Your task to perform on an android device: change the clock display to show seconds Image 0: 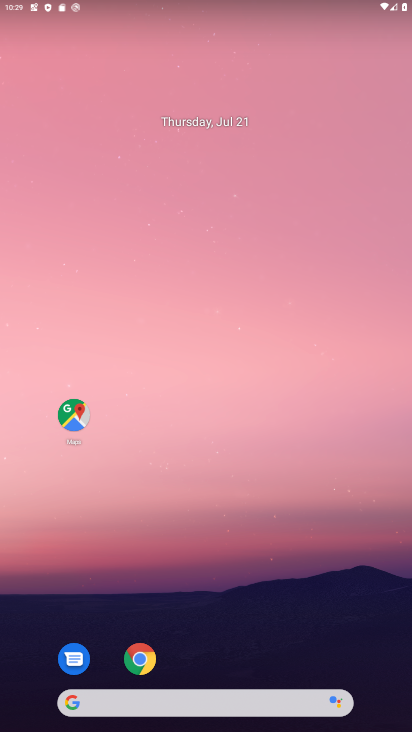
Step 0: drag from (249, 669) to (200, 78)
Your task to perform on an android device: change the clock display to show seconds Image 1: 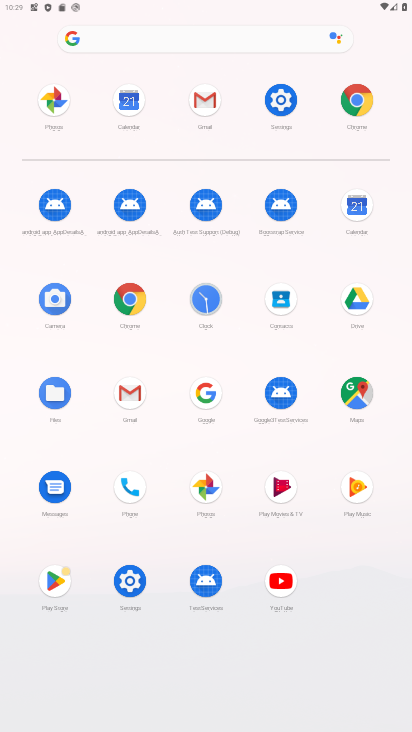
Step 1: click (210, 290)
Your task to perform on an android device: change the clock display to show seconds Image 2: 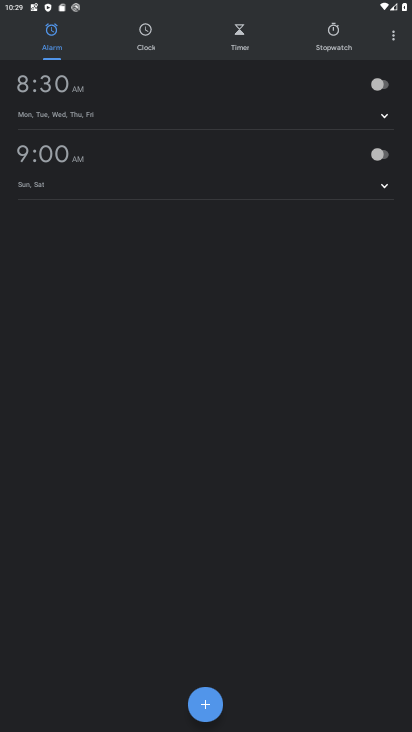
Step 2: click (401, 35)
Your task to perform on an android device: change the clock display to show seconds Image 3: 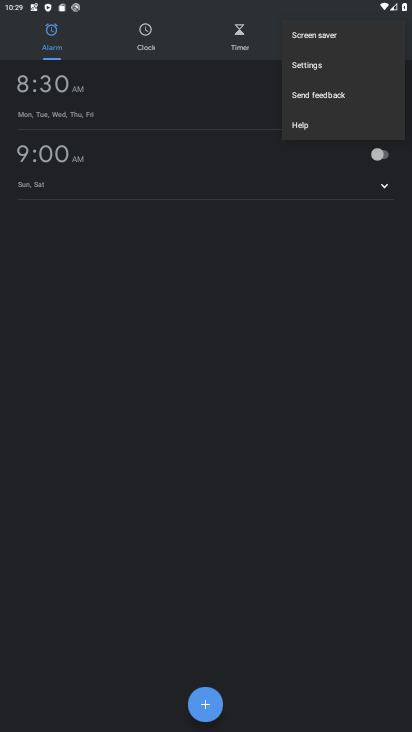
Step 3: click (337, 72)
Your task to perform on an android device: change the clock display to show seconds Image 4: 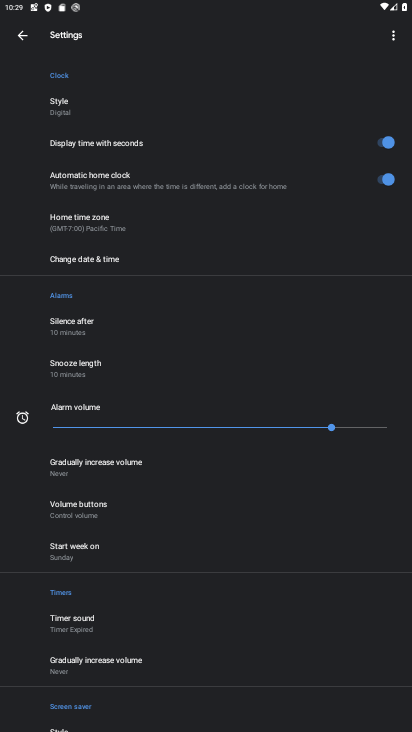
Step 4: click (102, 264)
Your task to perform on an android device: change the clock display to show seconds Image 5: 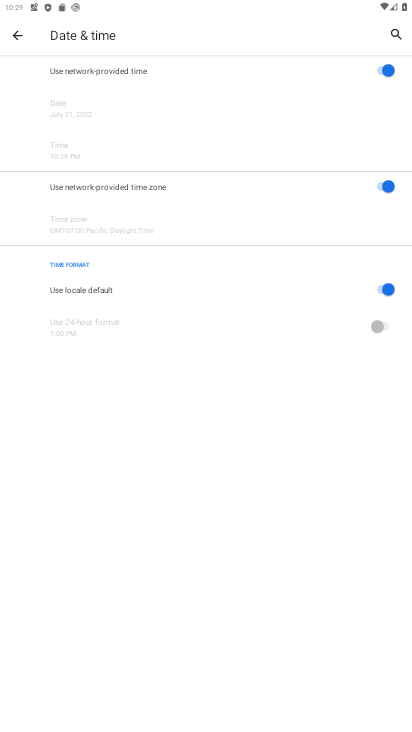
Step 5: click (23, 37)
Your task to perform on an android device: change the clock display to show seconds Image 6: 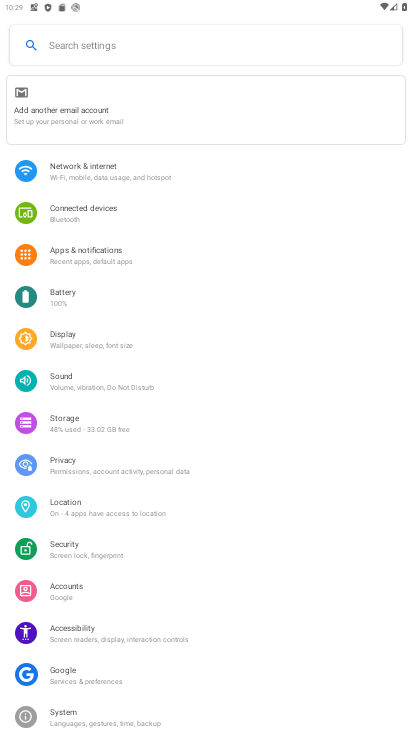
Step 6: task complete